Your task to perform on an android device: Show the shopping cart on bestbuy. Image 0: 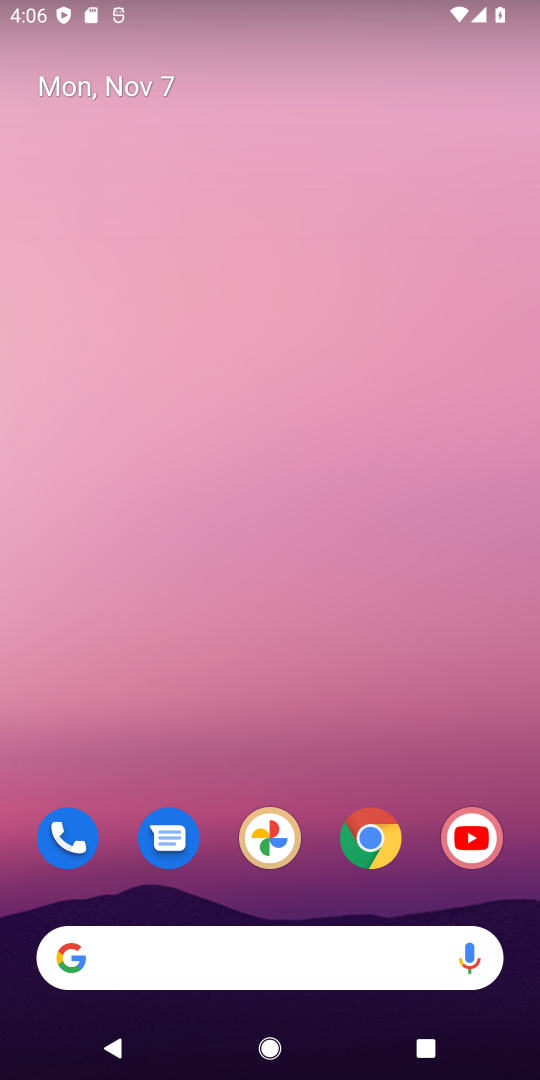
Step 0: click (348, 835)
Your task to perform on an android device: Show the shopping cart on bestbuy. Image 1: 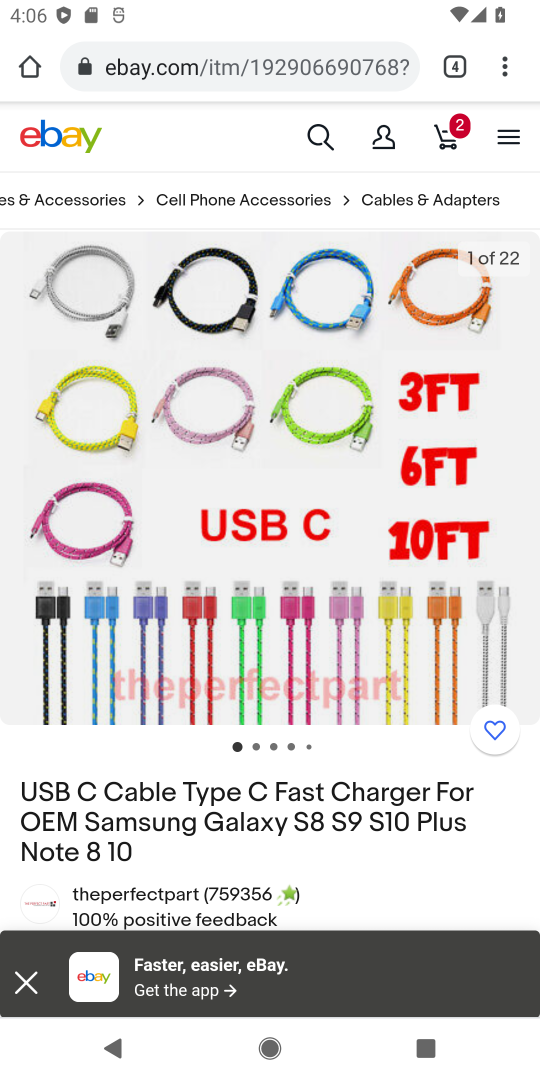
Step 1: click (449, 67)
Your task to perform on an android device: Show the shopping cart on bestbuy. Image 2: 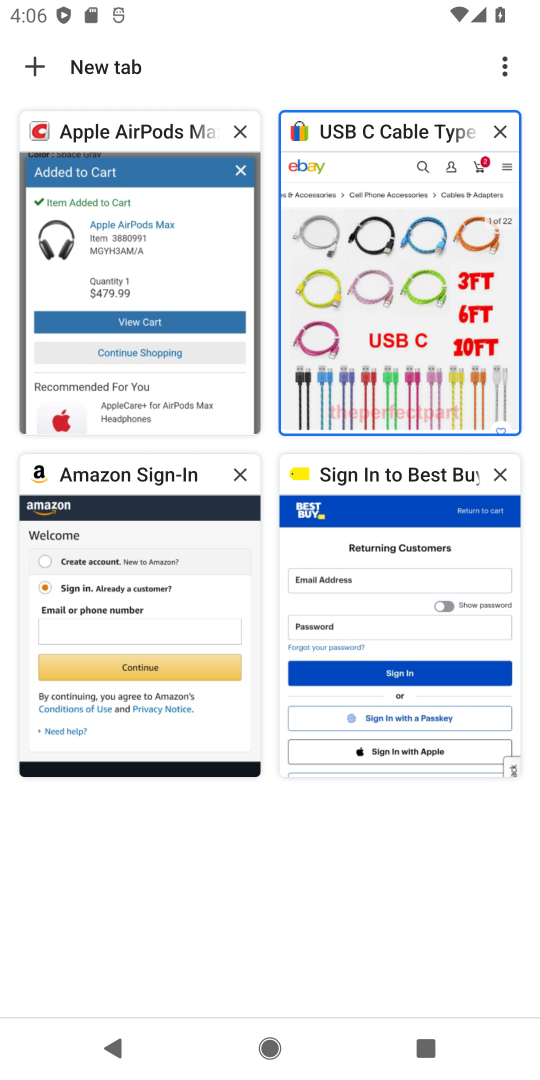
Step 2: click (334, 556)
Your task to perform on an android device: Show the shopping cart on bestbuy. Image 3: 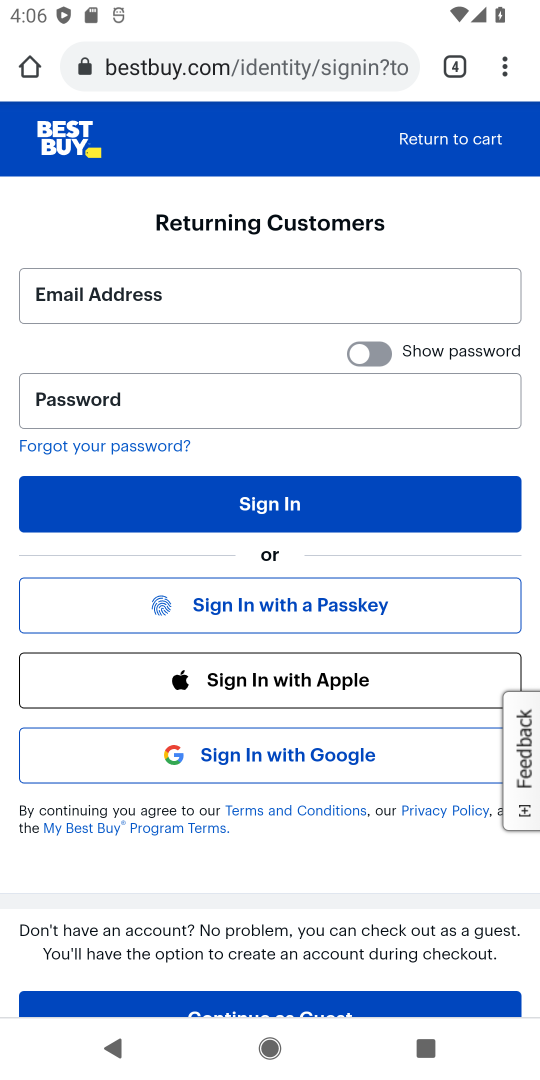
Step 3: click (469, 138)
Your task to perform on an android device: Show the shopping cart on bestbuy. Image 4: 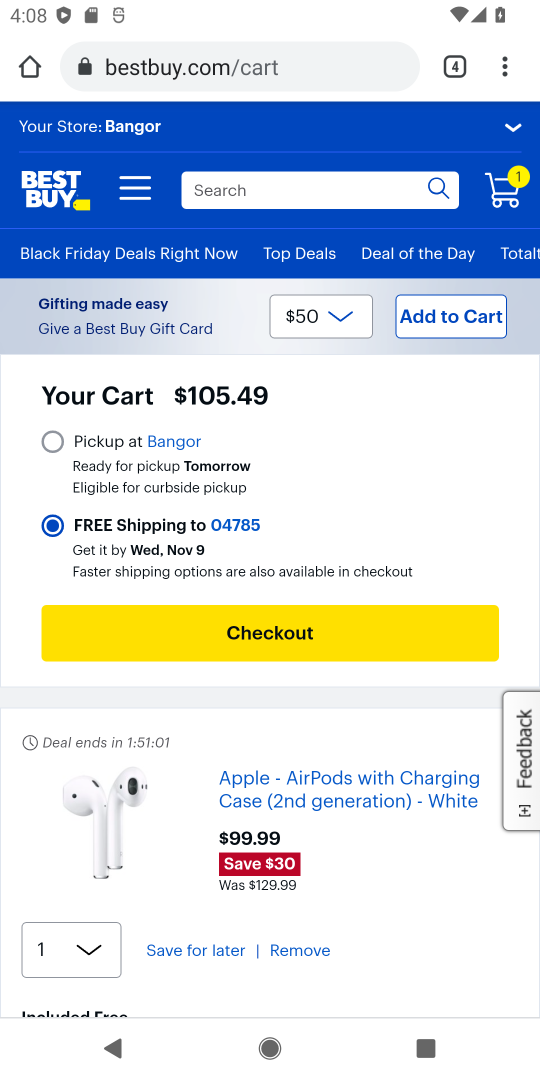
Step 4: task complete